Your task to perform on an android device: Open the phone app and click the voicemail tab. Image 0: 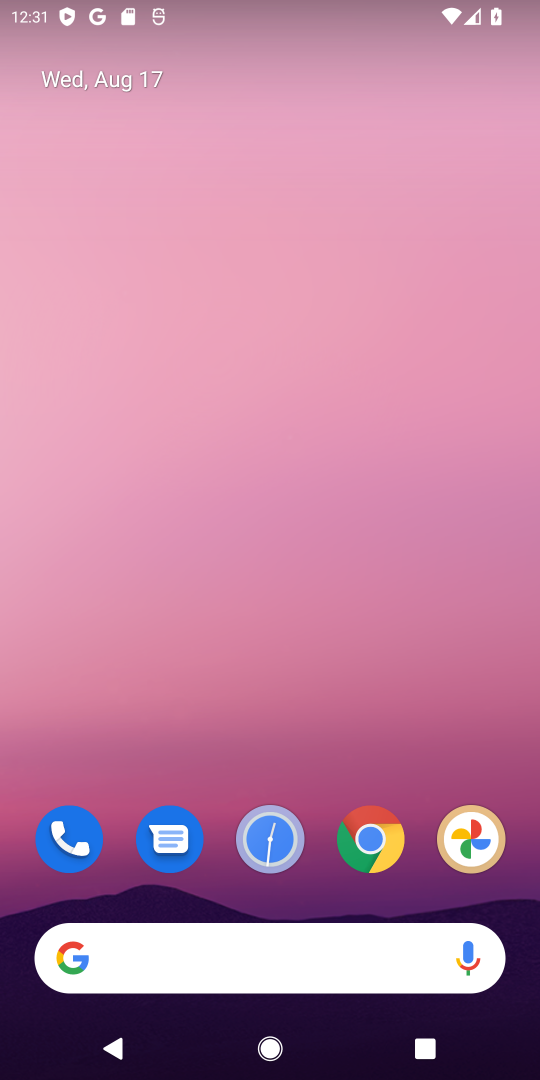
Step 0: drag from (271, 963) to (344, 207)
Your task to perform on an android device: Open the phone app and click the voicemail tab. Image 1: 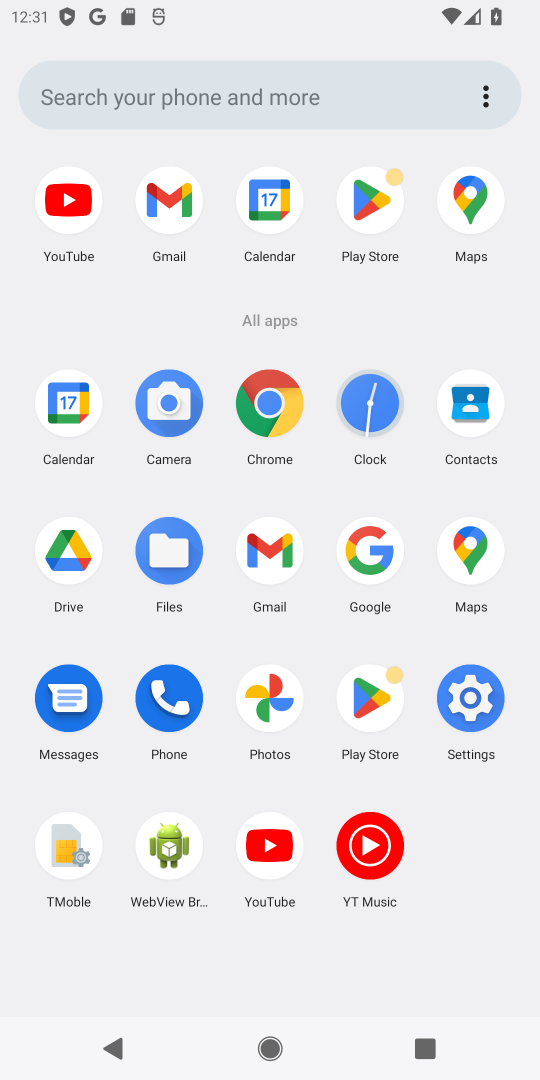
Step 1: click (162, 710)
Your task to perform on an android device: Open the phone app and click the voicemail tab. Image 2: 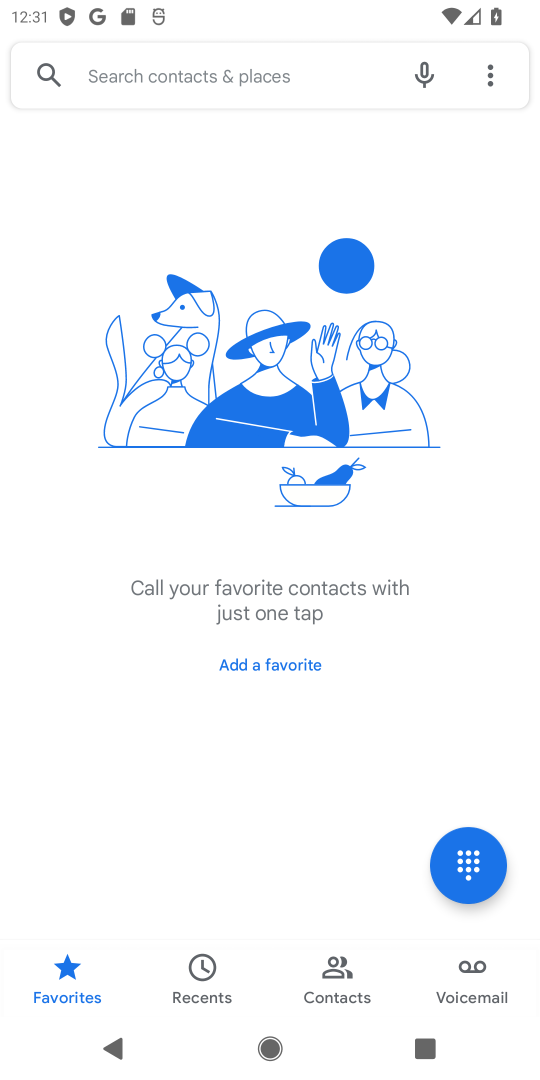
Step 2: click (470, 966)
Your task to perform on an android device: Open the phone app and click the voicemail tab. Image 3: 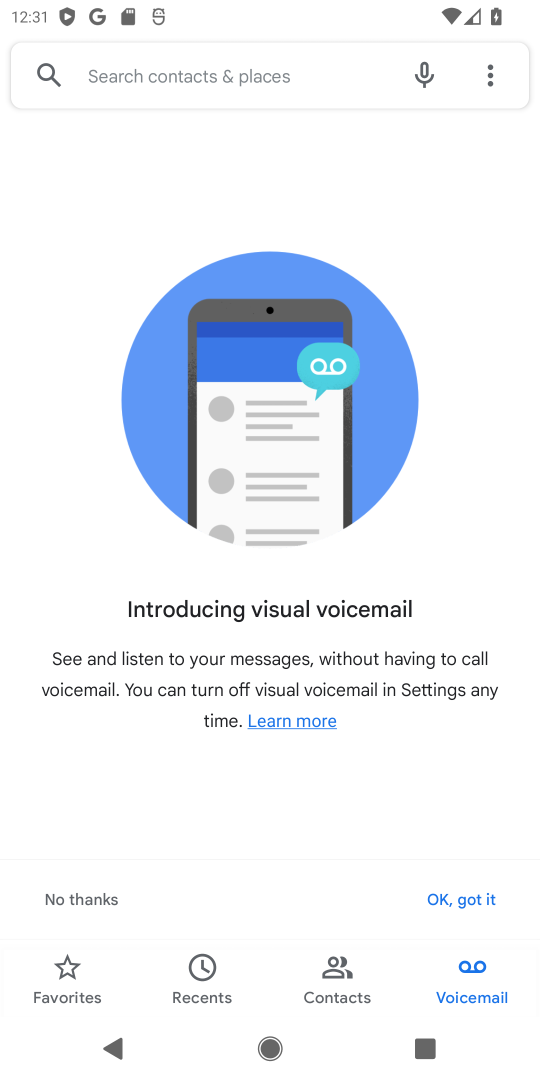
Step 3: task complete